Your task to perform on an android device: set the timer Image 0: 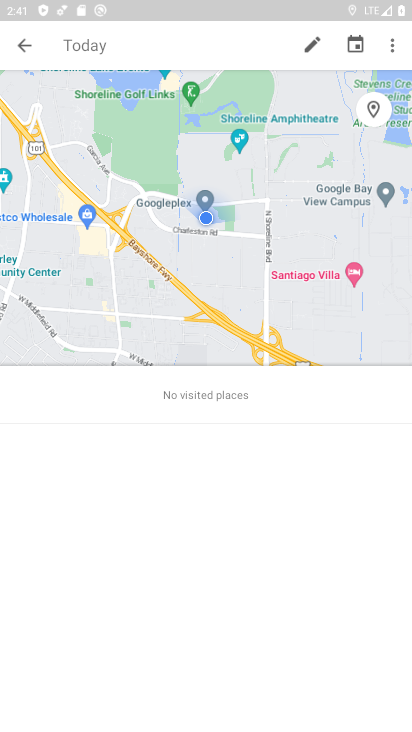
Step 0: press home button
Your task to perform on an android device: set the timer Image 1: 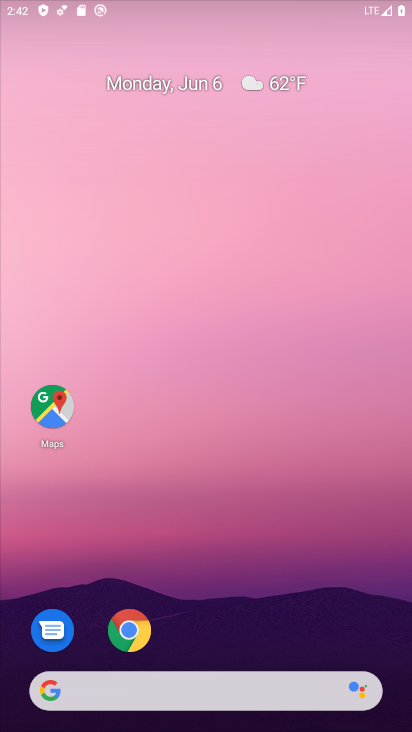
Step 1: drag from (396, 652) to (294, 718)
Your task to perform on an android device: set the timer Image 2: 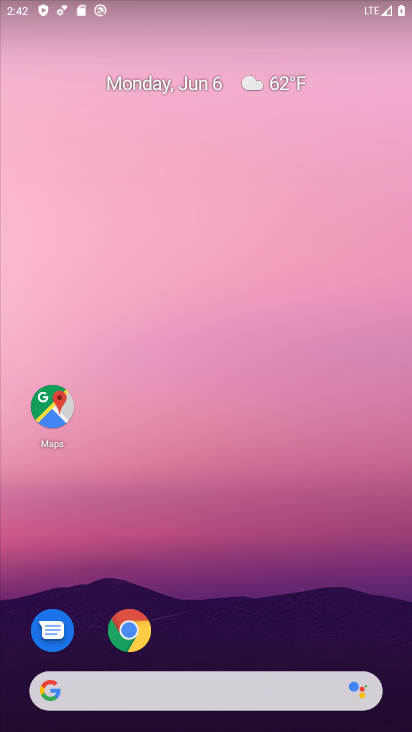
Step 2: drag from (393, 706) to (241, 118)
Your task to perform on an android device: set the timer Image 3: 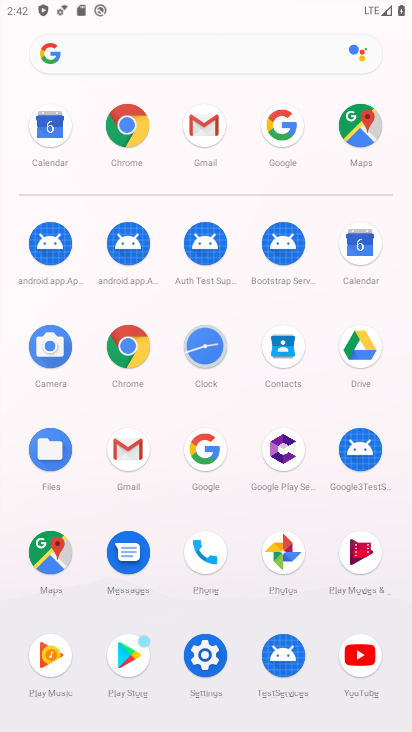
Step 3: click (204, 351)
Your task to perform on an android device: set the timer Image 4: 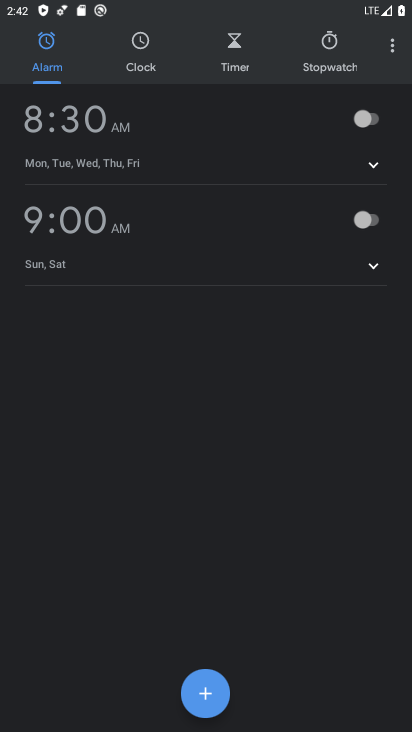
Step 4: click (242, 33)
Your task to perform on an android device: set the timer Image 5: 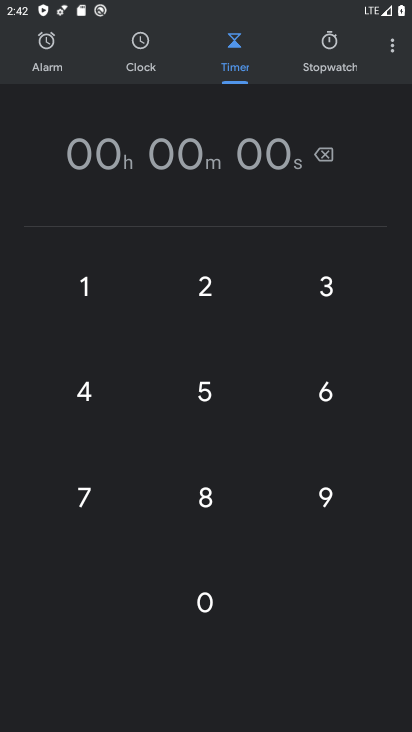
Step 5: click (327, 503)
Your task to perform on an android device: set the timer Image 6: 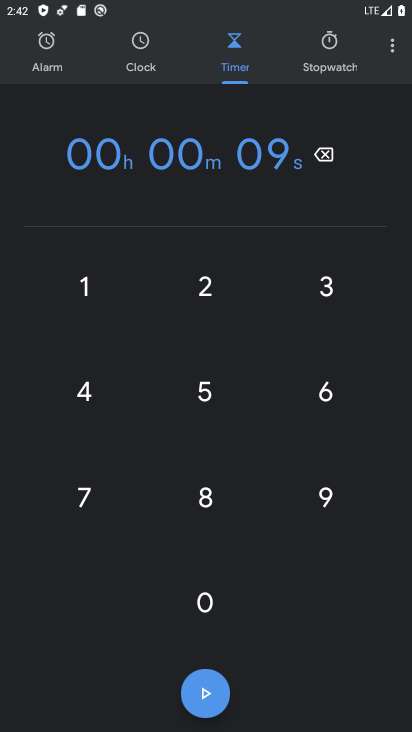
Step 6: click (210, 676)
Your task to perform on an android device: set the timer Image 7: 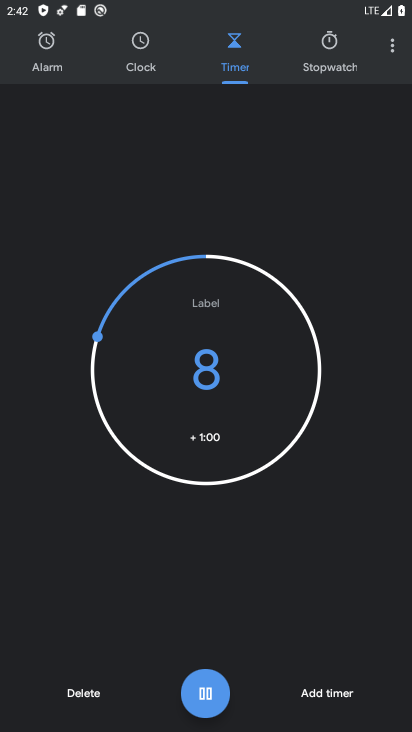
Step 7: task complete